Your task to perform on an android device: When is my next appointment? Image 0: 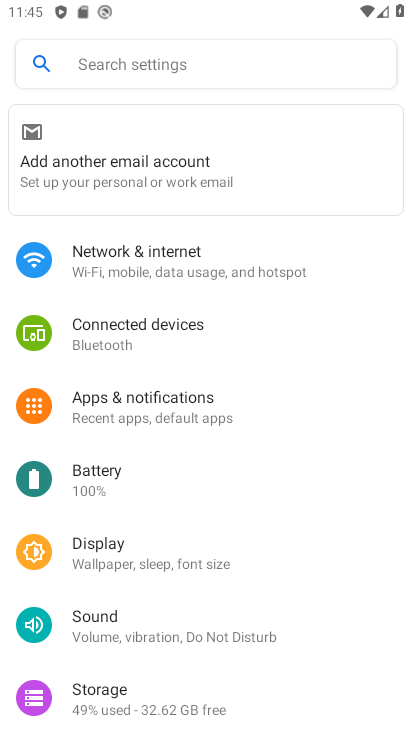
Step 0: press back button
Your task to perform on an android device: When is my next appointment? Image 1: 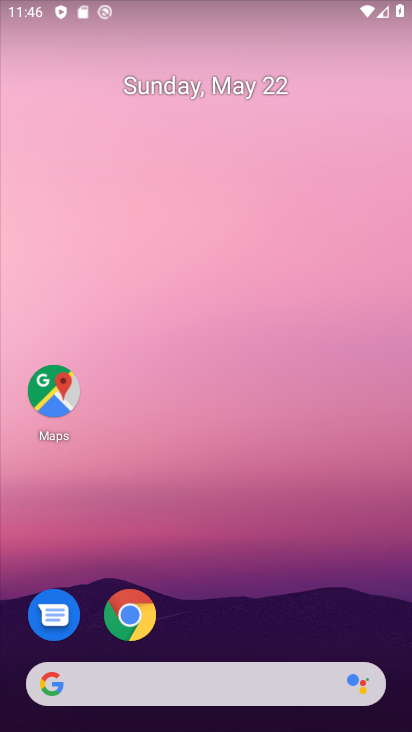
Step 1: drag from (294, 473) to (338, 37)
Your task to perform on an android device: When is my next appointment? Image 2: 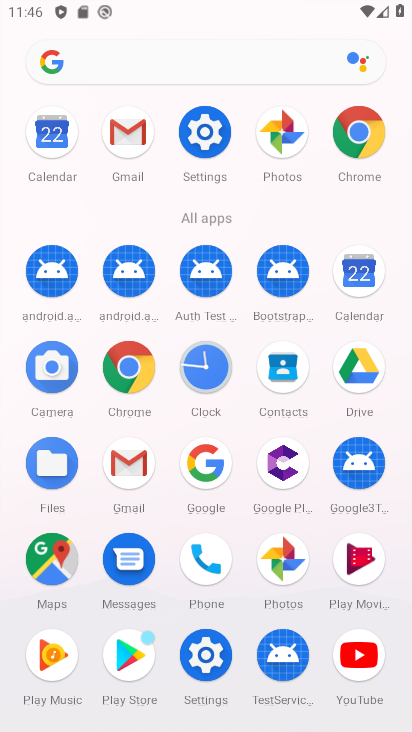
Step 2: click (358, 260)
Your task to perform on an android device: When is my next appointment? Image 3: 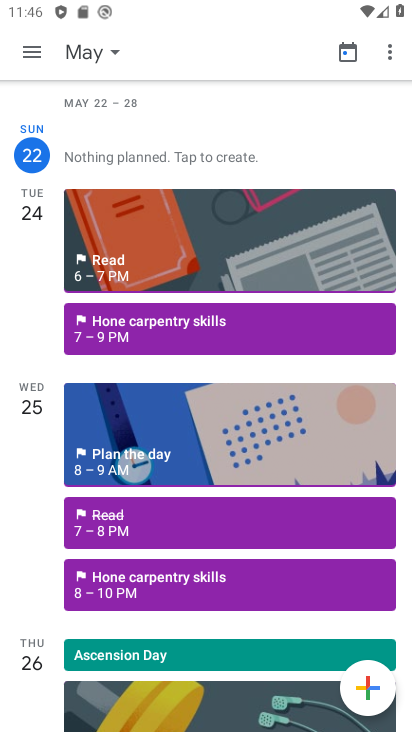
Step 3: task complete